Your task to perform on an android device: delete browsing data in the chrome app Image 0: 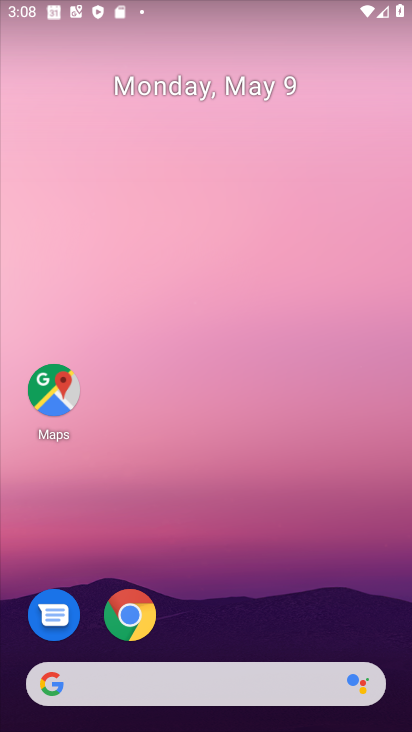
Step 0: drag from (242, 378) to (239, 273)
Your task to perform on an android device: delete browsing data in the chrome app Image 1: 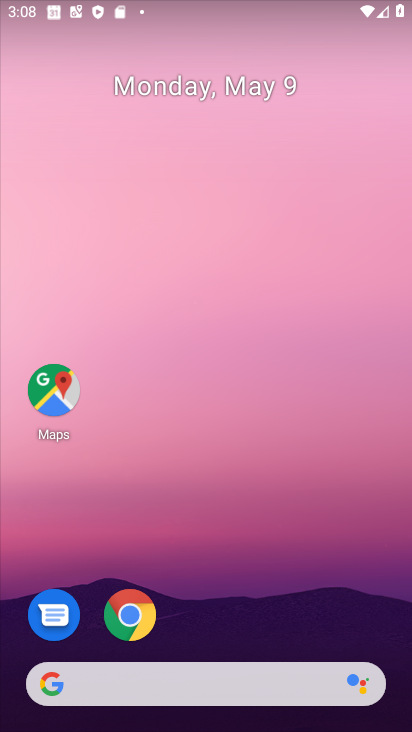
Step 1: drag from (169, 610) to (228, 258)
Your task to perform on an android device: delete browsing data in the chrome app Image 2: 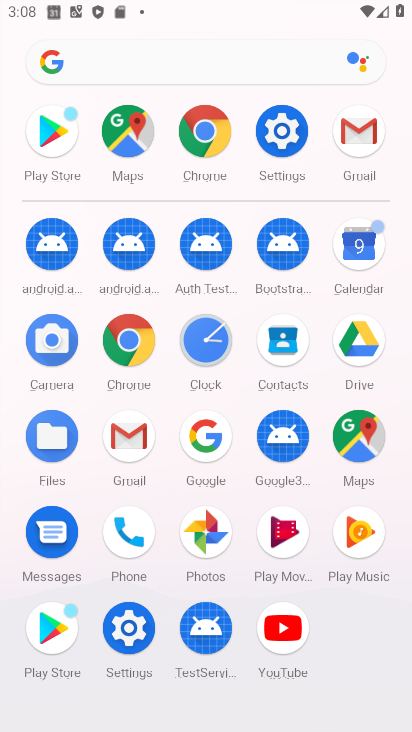
Step 2: click (123, 337)
Your task to perform on an android device: delete browsing data in the chrome app Image 3: 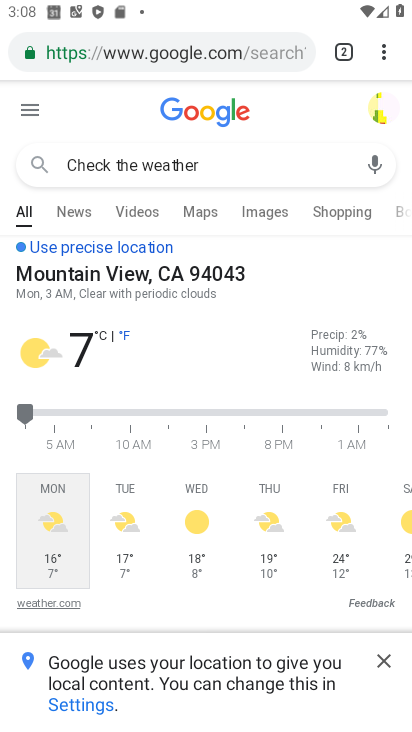
Step 3: click (375, 46)
Your task to perform on an android device: delete browsing data in the chrome app Image 4: 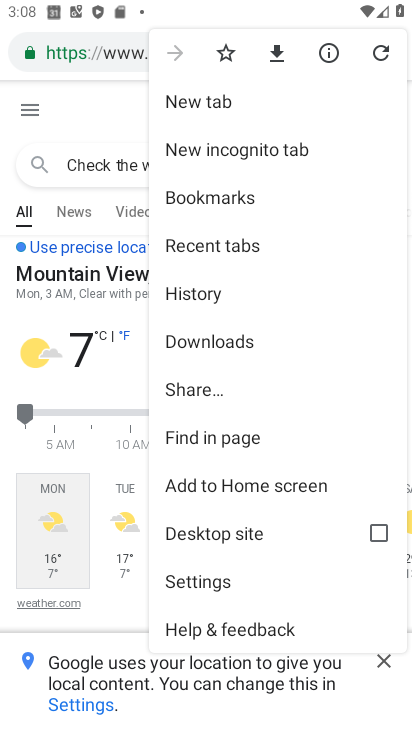
Step 4: click (203, 292)
Your task to perform on an android device: delete browsing data in the chrome app Image 5: 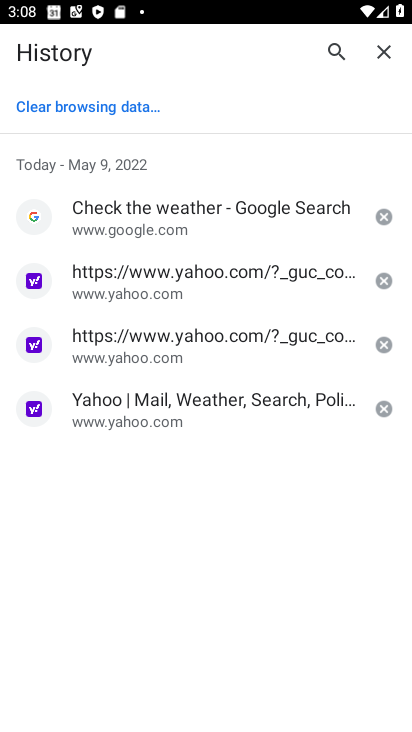
Step 5: click (57, 95)
Your task to perform on an android device: delete browsing data in the chrome app Image 6: 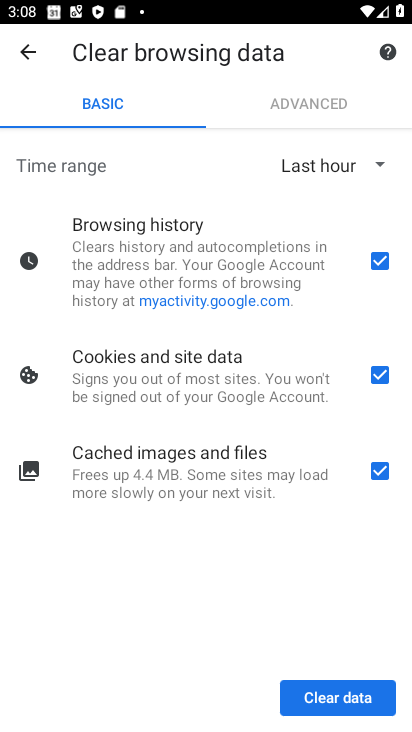
Step 6: click (312, 710)
Your task to perform on an android device: delete browsing data in the chrome app Image 7: 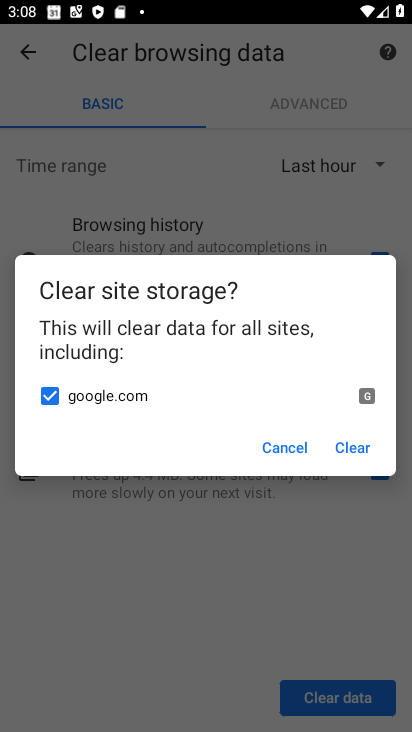
Step 7: click (325, 445)
Your task to perform on an android device: delete browsing data in the chrome app Image 8: 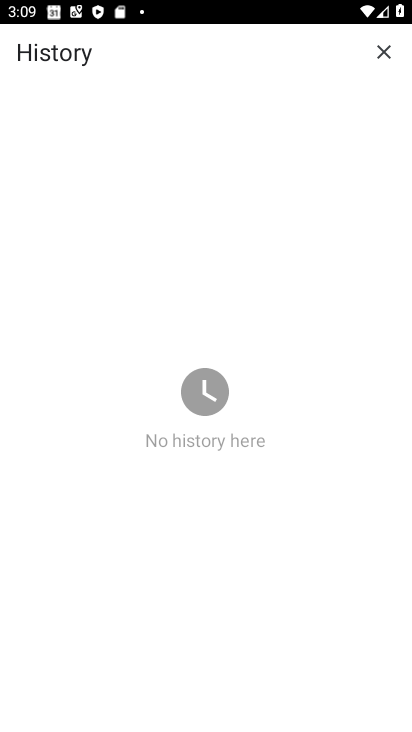
Step 8: task complete